Your task to perform on an android device: Go to calendar. Show me events next week Image 0: 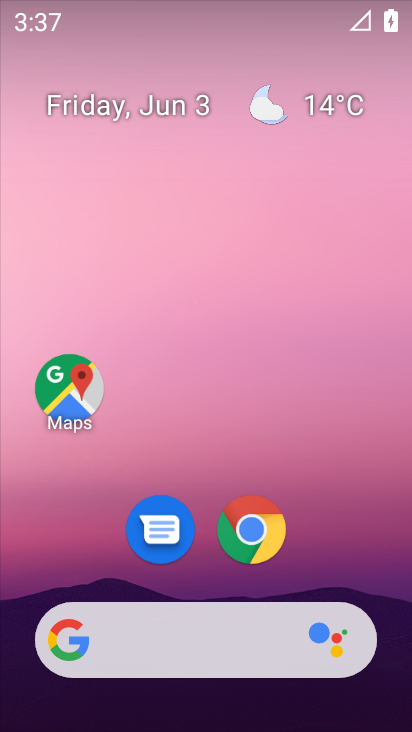
Step 0: drag from (360, 549) to (3, 317)
Your task to perform on an android device: Go to calendar. Show me events next week Image 1: 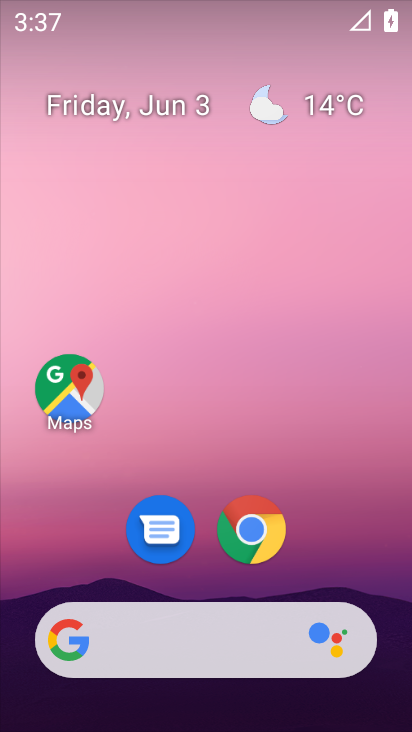
Step 1: drag from (370, 525) to (384, 54)
Your task to perform on an android device: Go to calendar. Show me events next week Image 2: 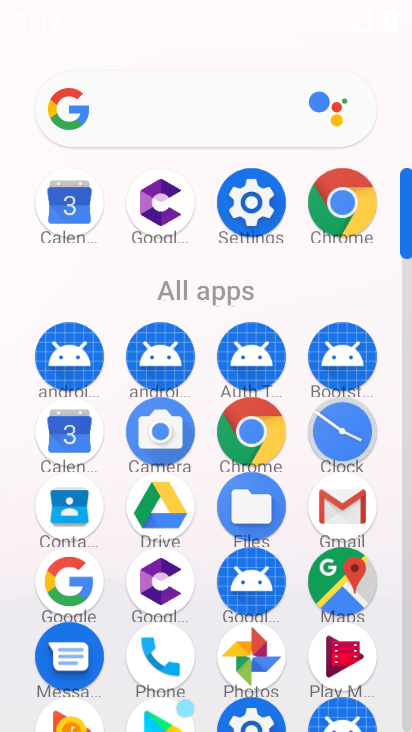
Step 2: click (81, 432)
Your task to perform on an android device: Go to calendar. Show me events next week Image 3: 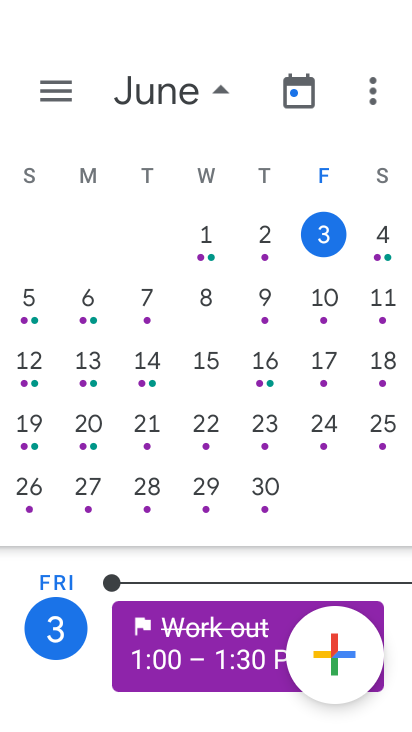
Step 3: click (338, 318)
Your task to perform on an android device: Go to calendar. Show me events next week Image 4: 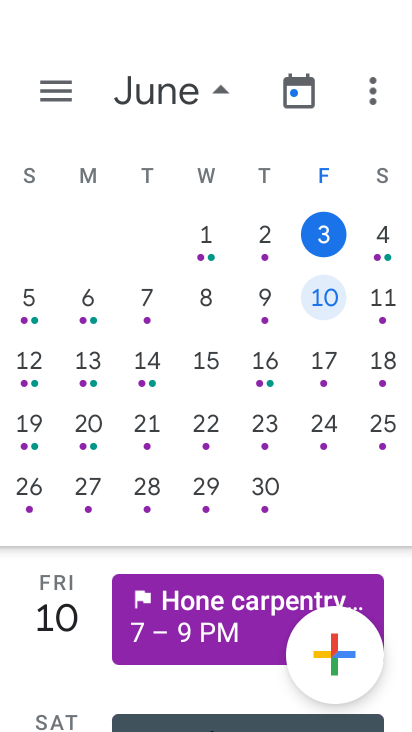
Step 4: task complete